Your task to perform on an android device: toggle notifications settings in the gmail app Image 0: 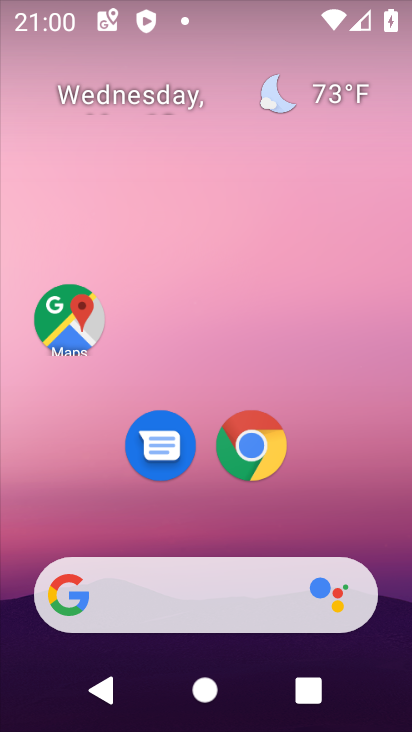
Step 0: drag from (331, 466) to (324, 164)
Your task to perform on an android device: toggle notifications settings in the gmail app Image 1: 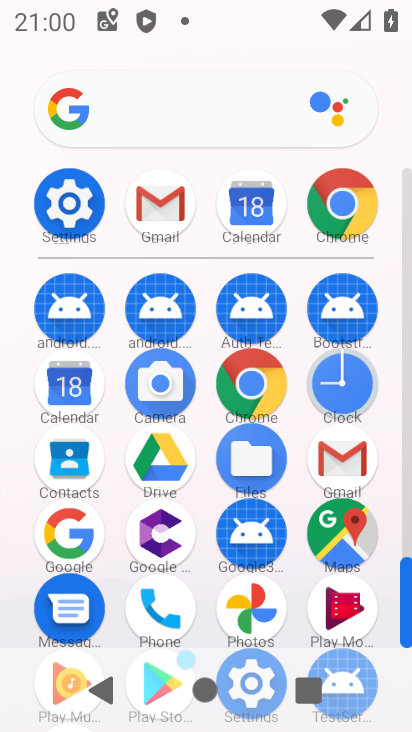
Step 1: click (332, 460)
Your task to perform on an android device: toggle notifications settings in the gmail app Image 2: 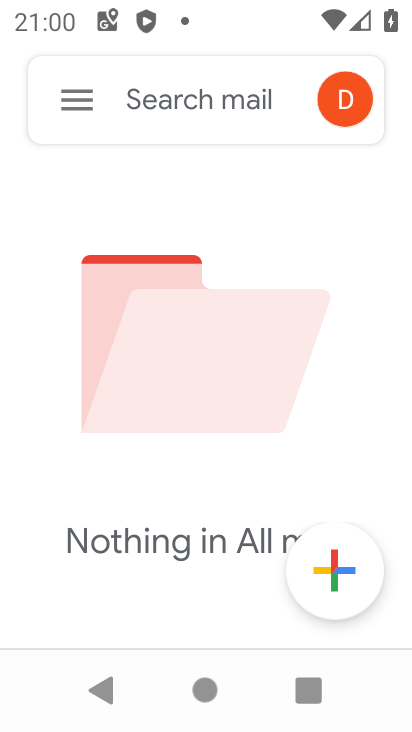
Step 2: click (73, 101)
Your task to perform on an android device: toggle notifications settings in the gmail app Image 3: 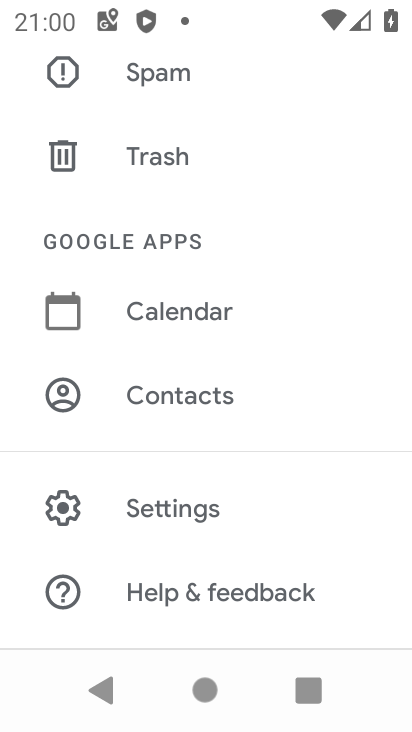
Step 3: click (170, 504)
Your task to perform on an android device: toggle notifications settings in the gmail app Image 4: 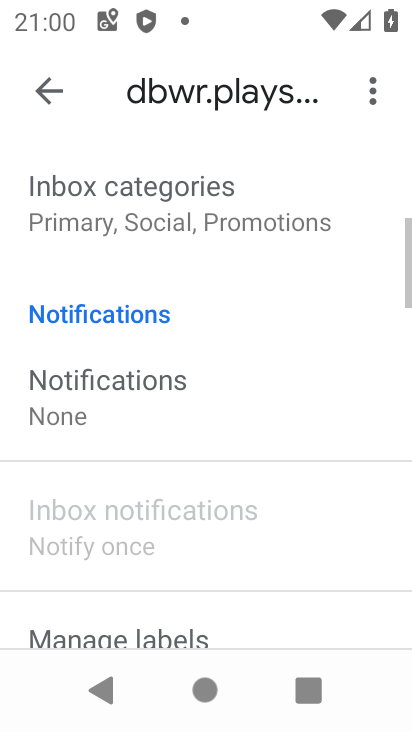
Step 4: click (149, 416)
Your task to perform on an android device: toggle notifications settings in the gmail app Image 5: 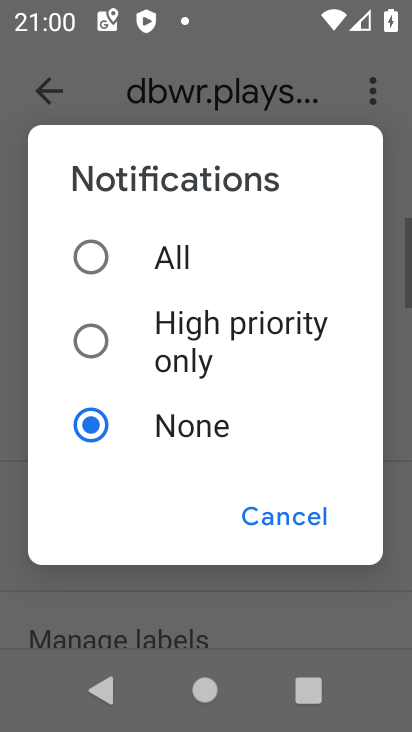
Step 5: click (170, 243)
Your task to perform on an android device: toggle notifications settings in the gmail app Image 6: 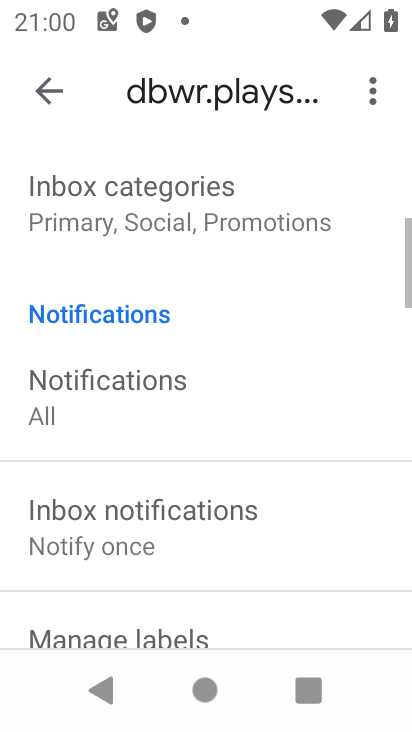
Step 6: task complete